Your task to perform on an android device: turn off javascript in the chrome app Image 0: 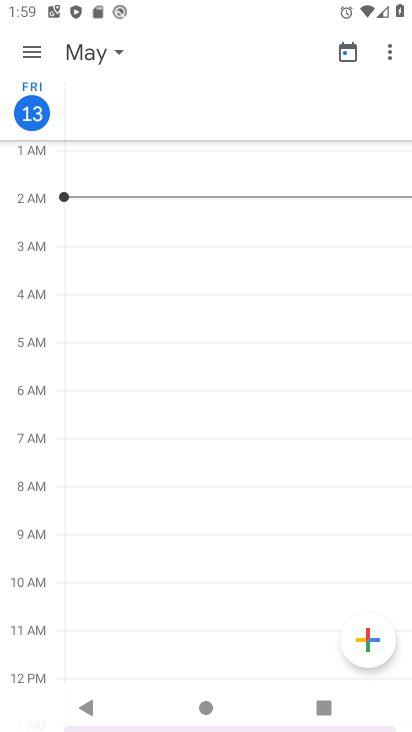
Step 0: press home button
Your task to perform on an android device: turn off javascript in the chrome app Image 1: 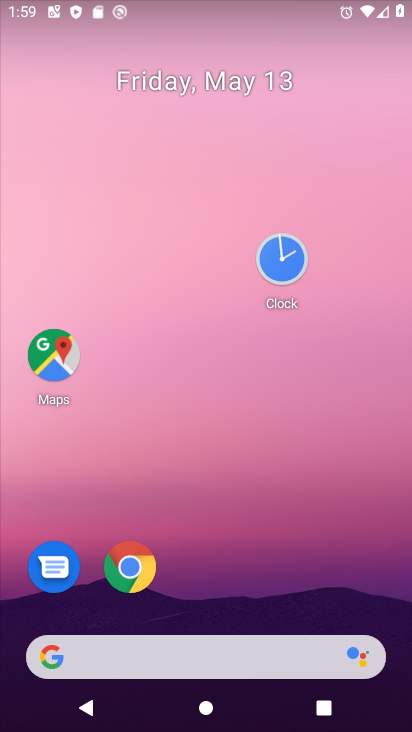
Step 1: click (150, 550)
Your task to perform on an android device: turn off javascript in the chrome app Image 2: 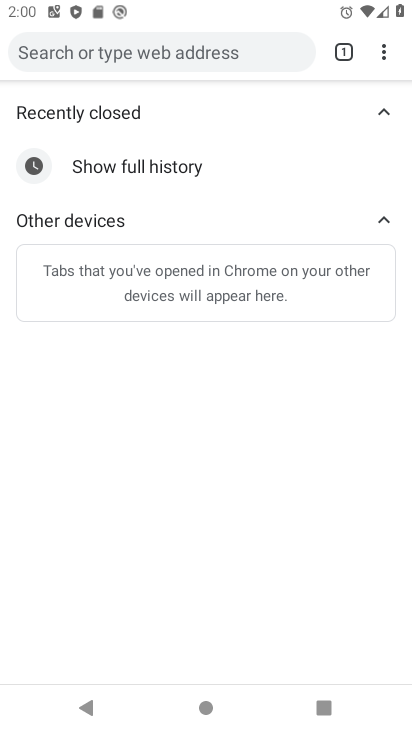
Step 2: click (380, 58)
Your task to perform on an android device: turn off javascript in the chrome app Image 3: 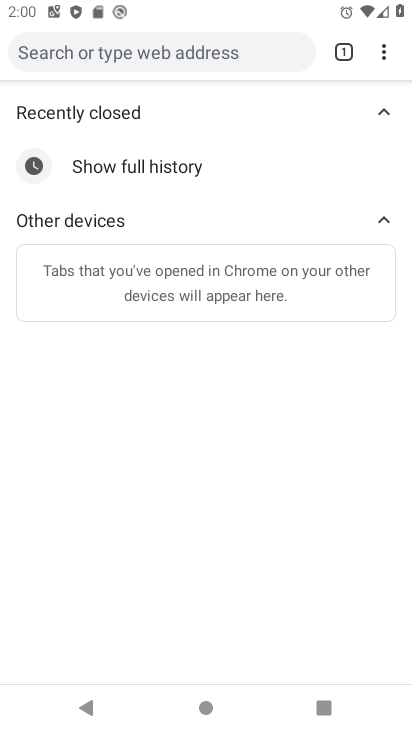
Step 3: click (380, 58)
Your task to perform on an android device: turn off javascript in the chrome app Image 4: 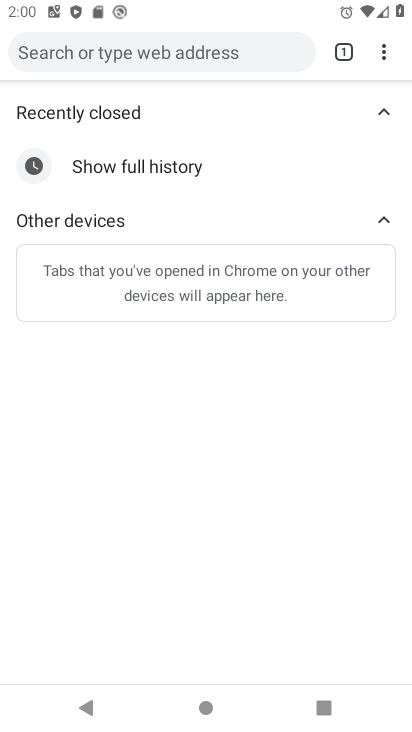
Step 4: click (384, 58)
Your task to perform on an android device: turn off javascript in the chrome app Image 5: 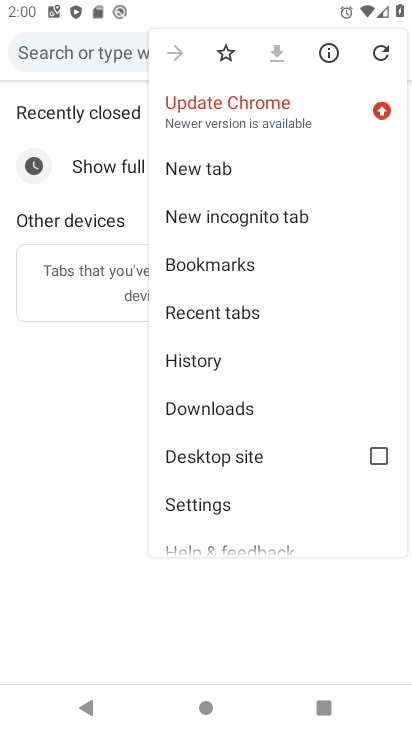
Step 5: click (234, 512)
Your task to perform on an android device: turn off javascript in the chrome app Image 6: 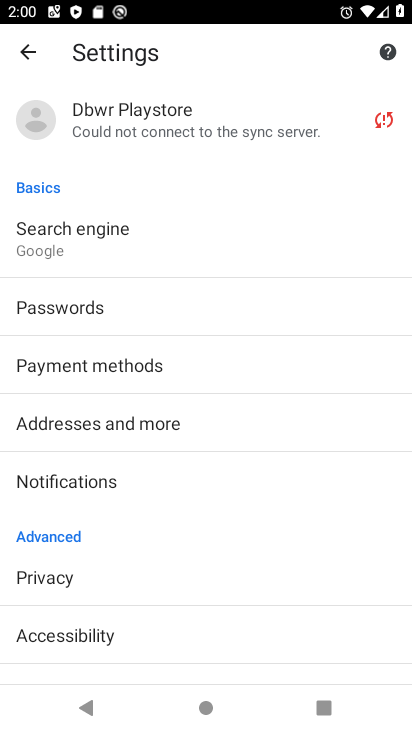
Step 6: drag from (235, 539) to (209, 392)
Your task to perform on an android device: turn off javascript in the chrome app Image 7: 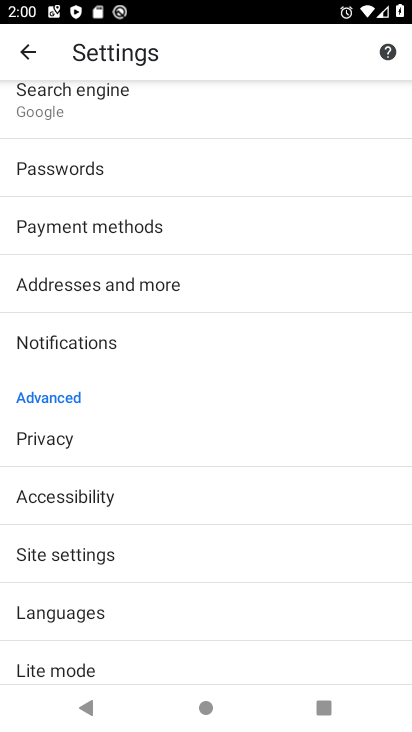
Step 7: click (175, 543)
Your task to perform on an android device: turn off javascript in the chrome app Image 8: 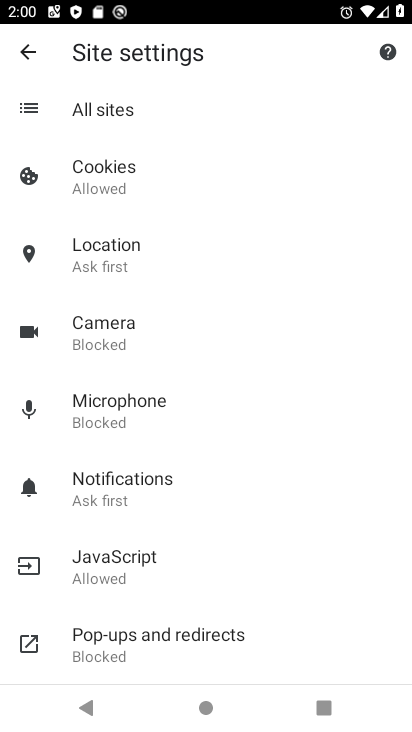
Step 8: click (163, 559)
Your task to perform on an android device: turn off javascript in the chrome app Image 9: 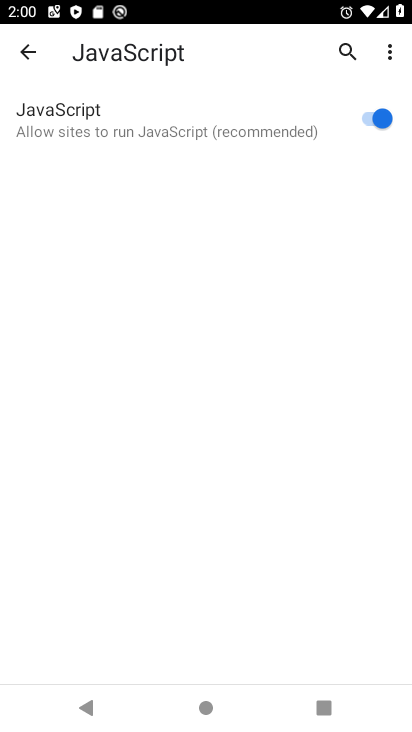
Step 9: click (385, 133)
Your task to perform on an android device: turn off javascript in the chrome app Image 10: 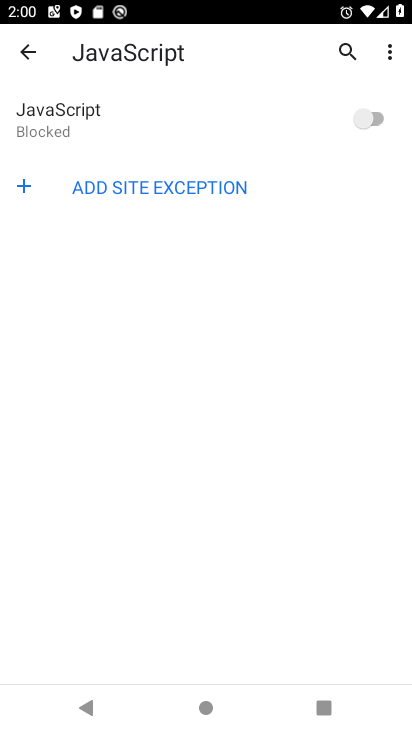
Step 10: task complete